Your task to perform on an android device: Go to network settings Image 0: 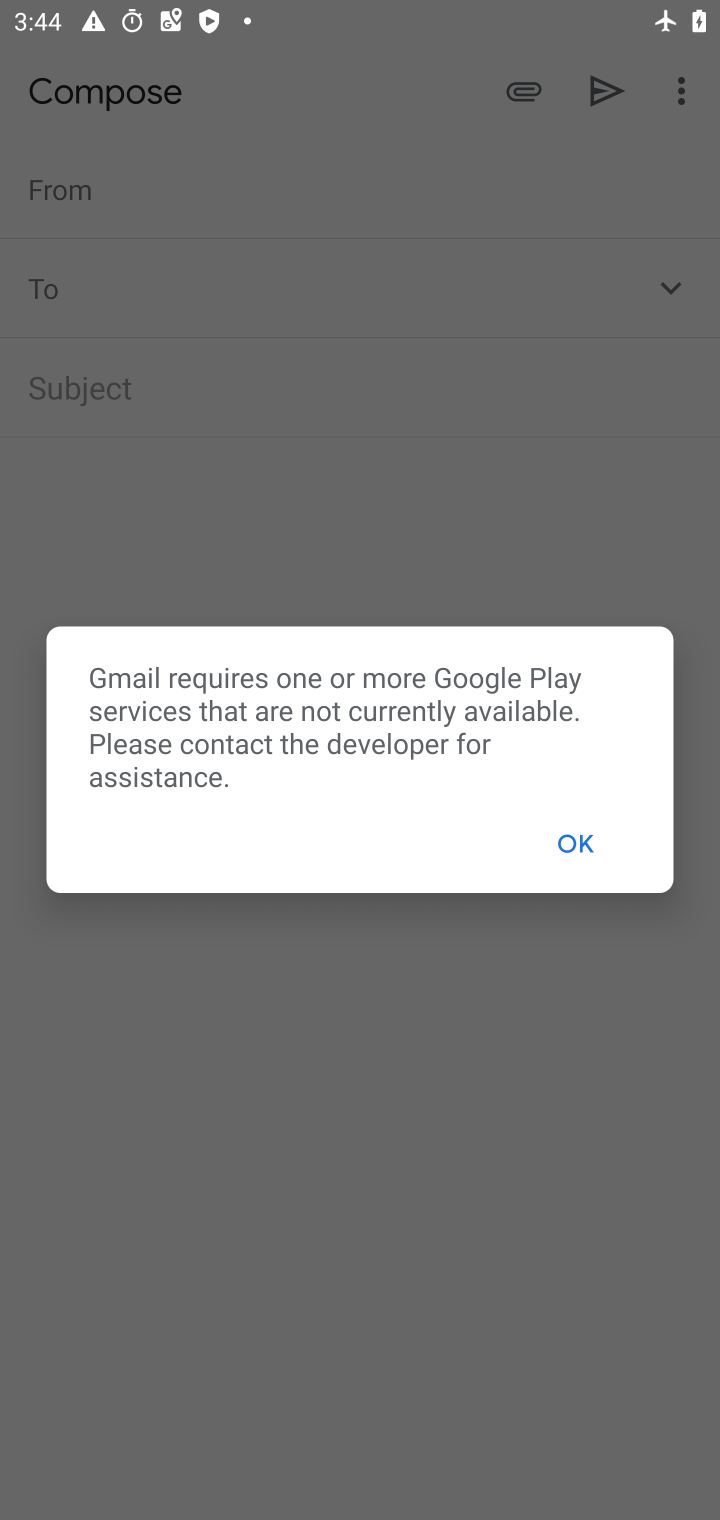
Step 0: press home button
Your task to perform on an android device: Go to network settings Image 1: 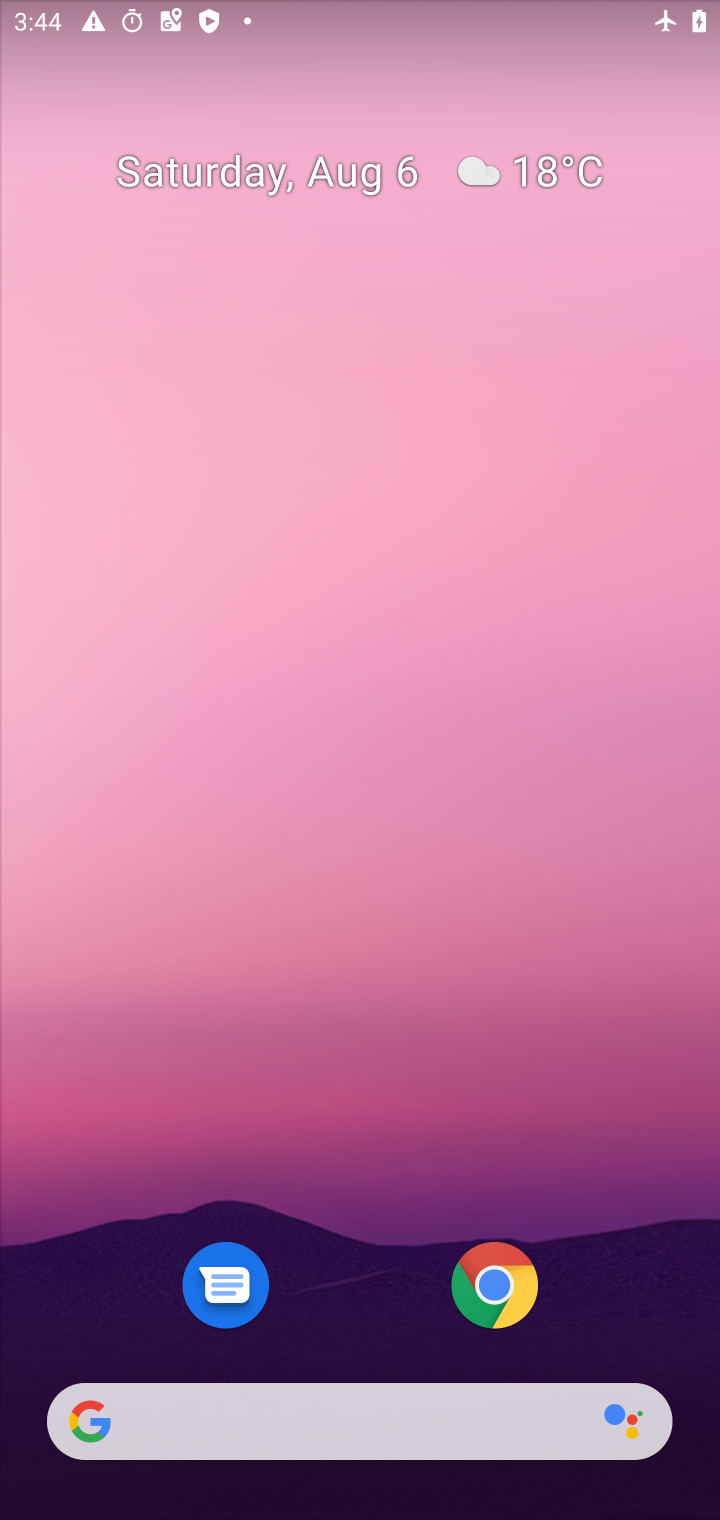
Step 1: drag from (386, 1092) to (434, 403)
Your task to perform on an android device: Go to network settings Image 2: 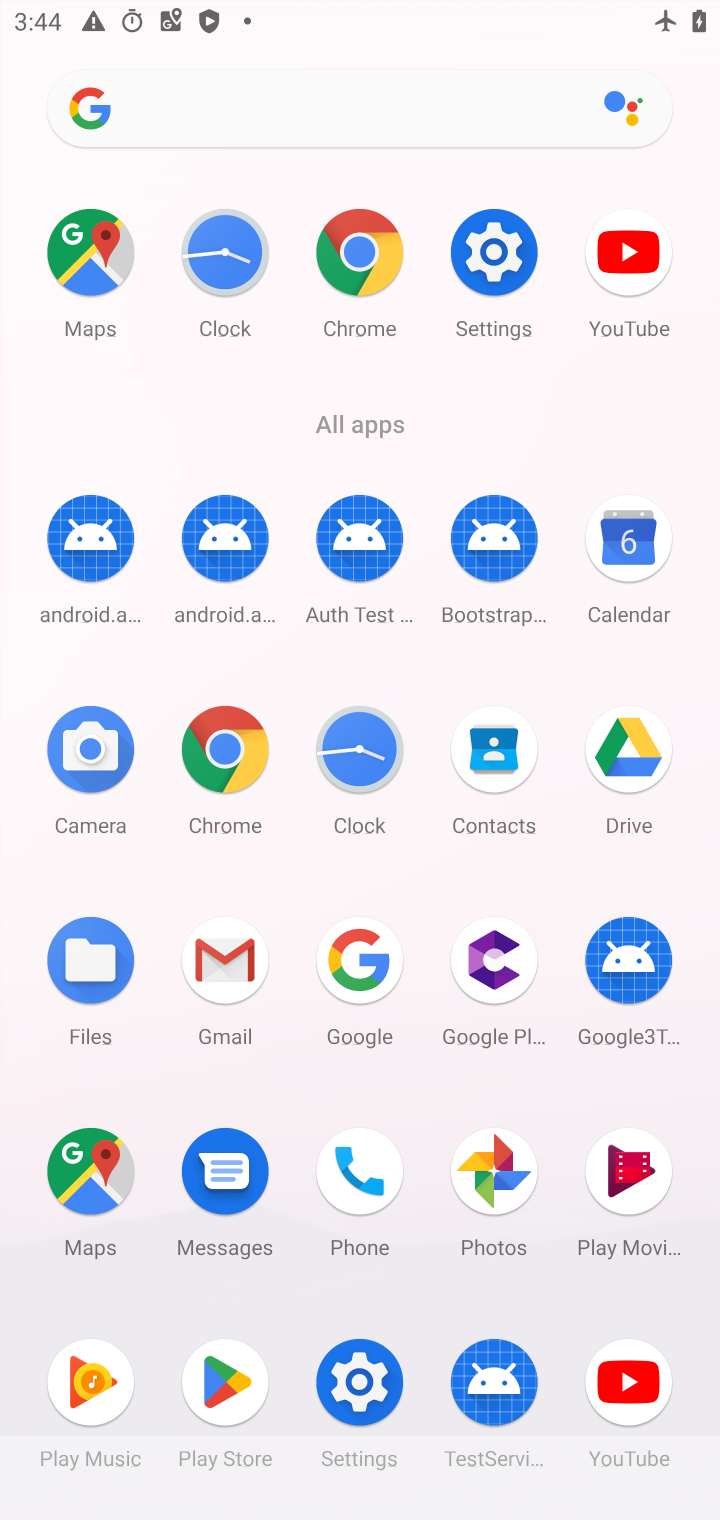
Step 2: click (497, 262)
Your task to perform on an android device: Go to network settings Image 3: 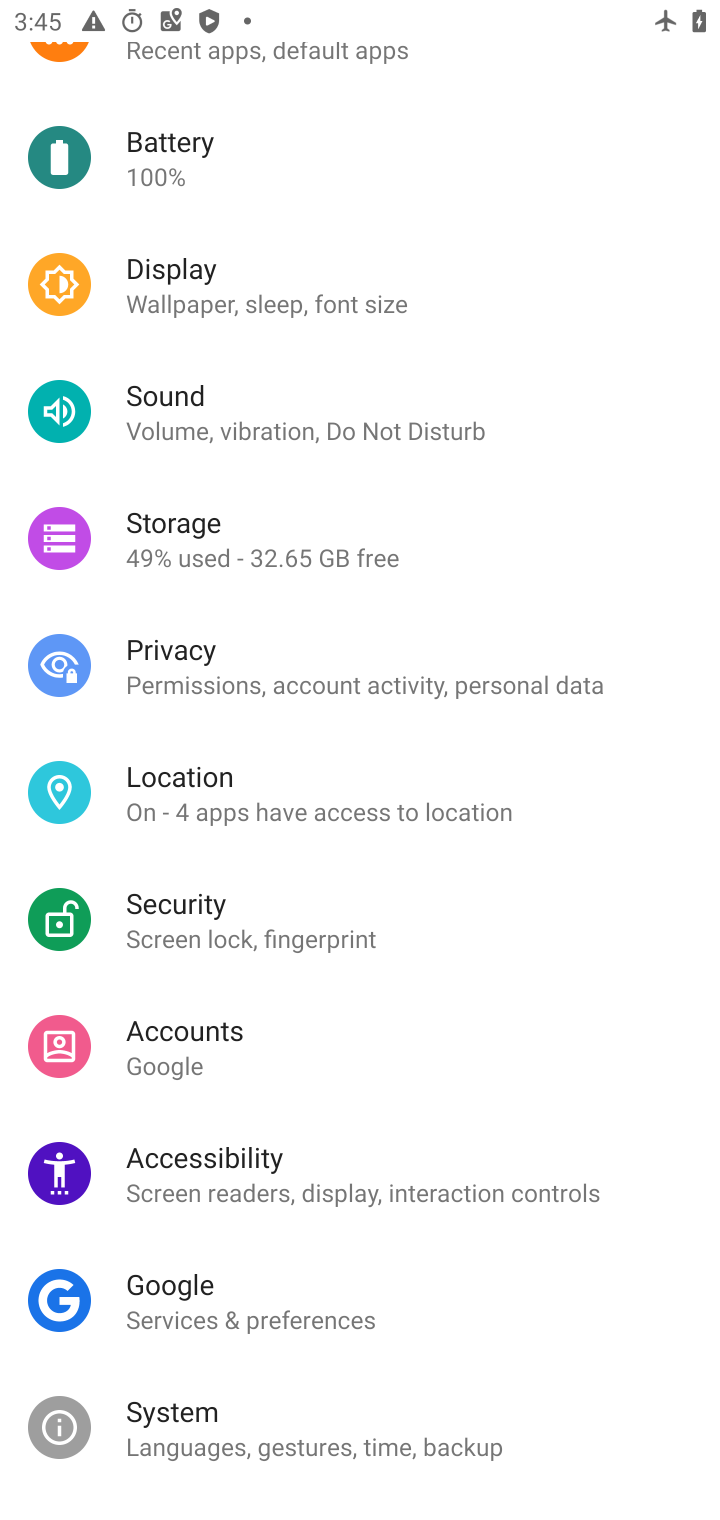
Step 3: drag from (249, 241) to (301, 1479)
Your task to perform on an android device: Go to network settings Image 4: 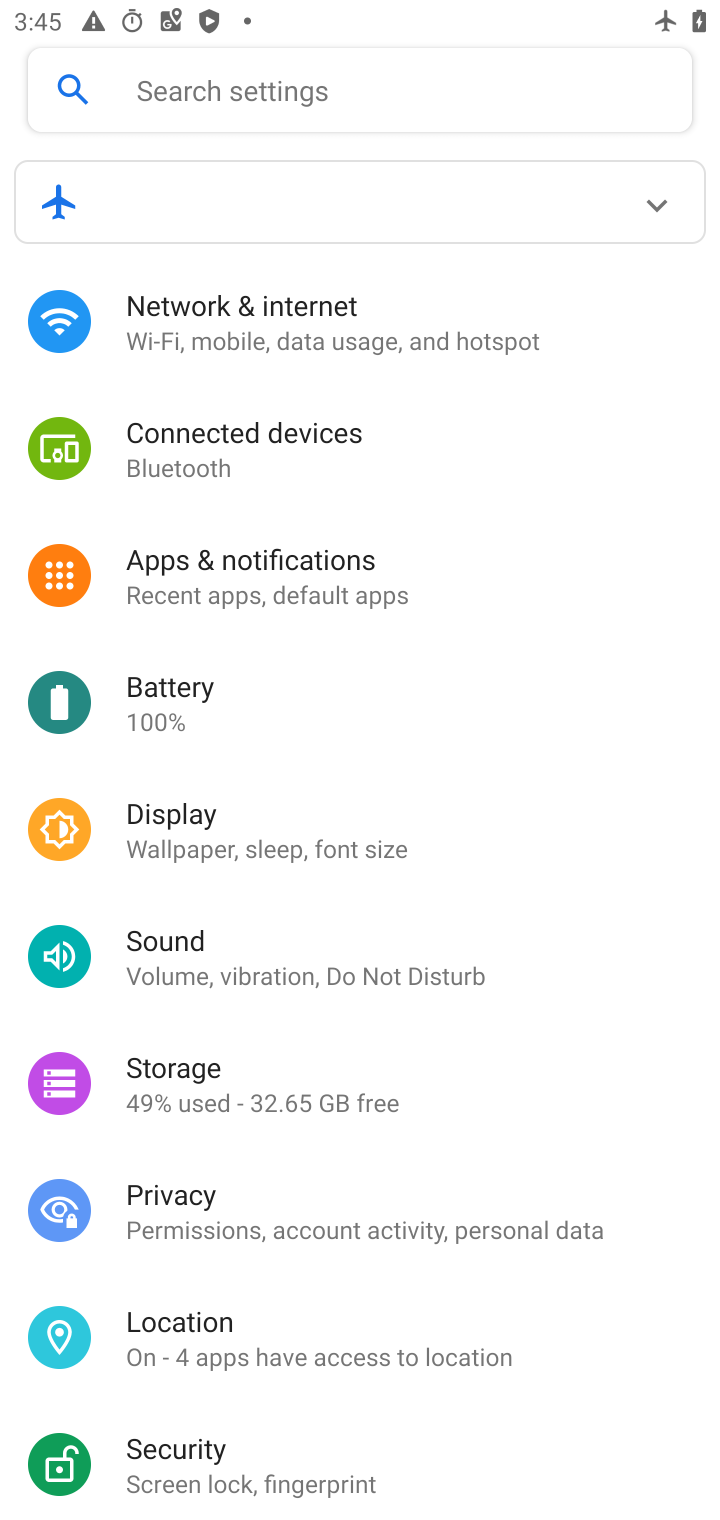
Step 4: click (288, 321)
Your task to perform on an android device: Go to network settings Image 5: 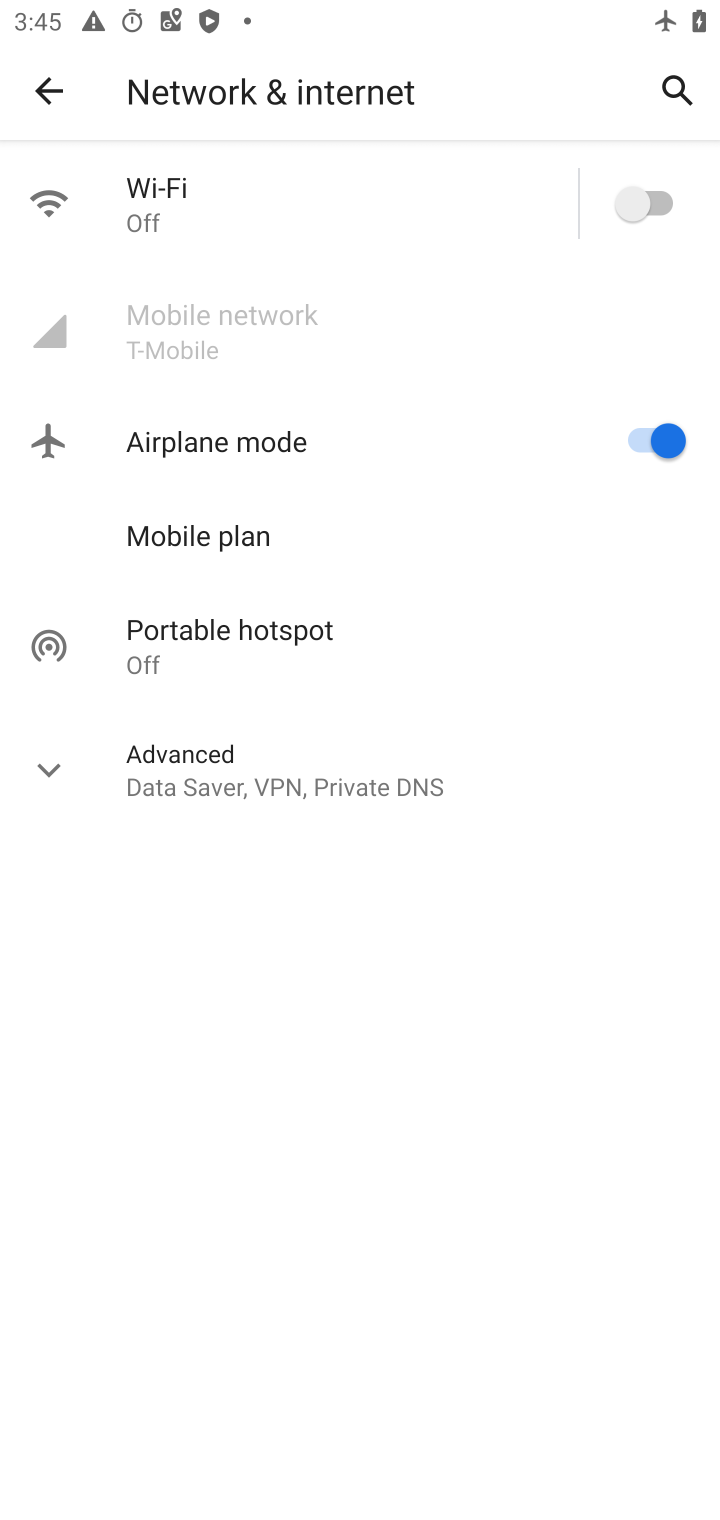
Step 5: click (272, 179)
Your task to perform on an android device: Go to network settings Image 6: 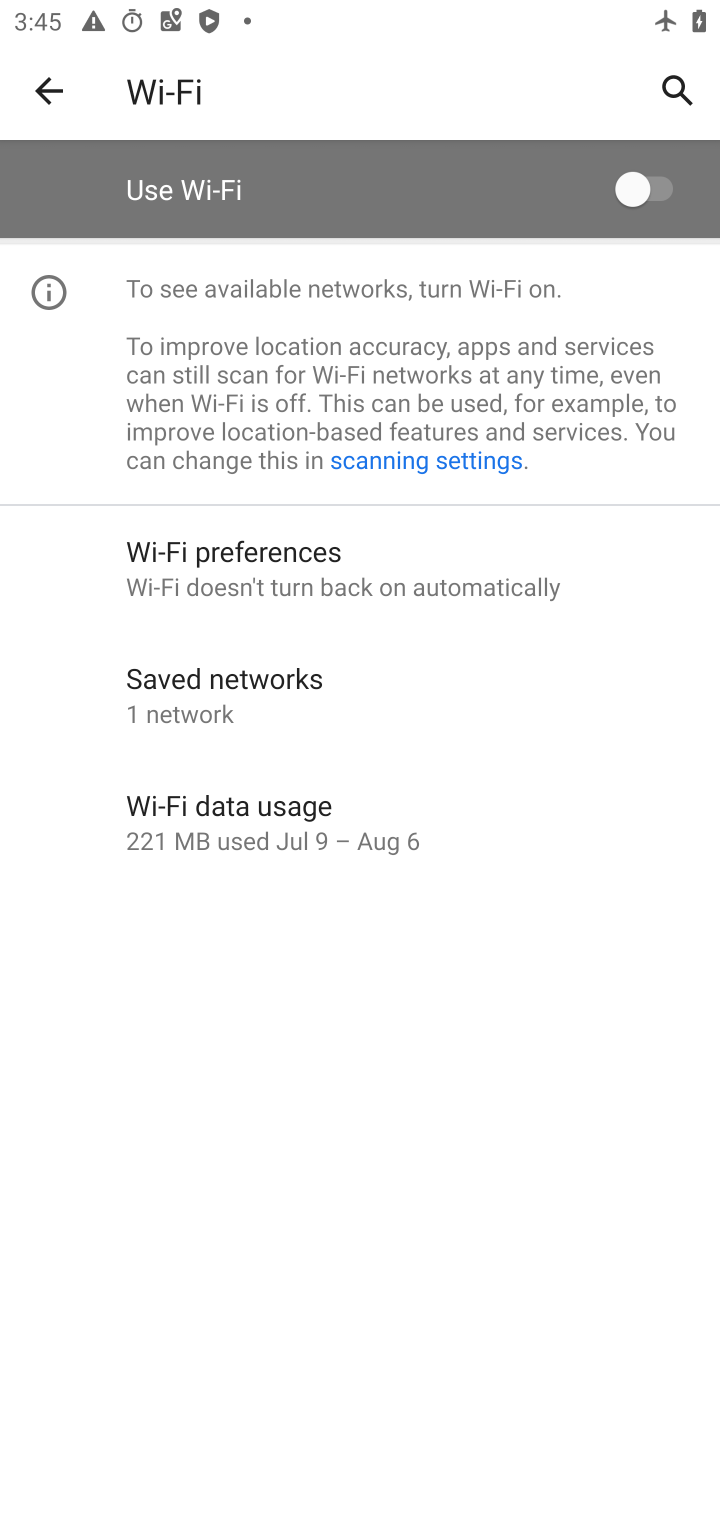
Step 6: task complete